Your task to perform on an android device: change notifications settings Image 0: 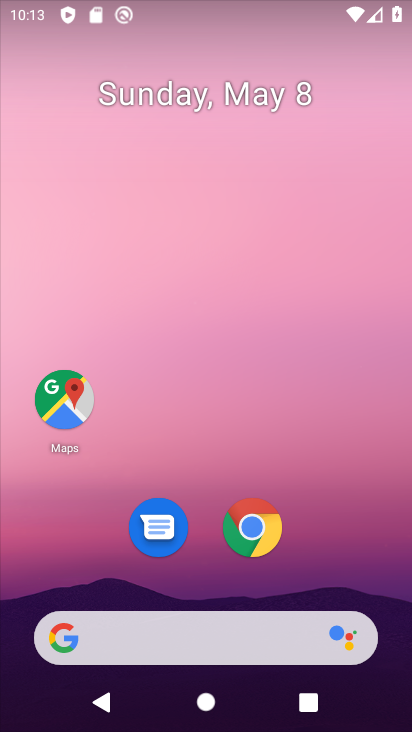
Step 0: drag from (319, 542) to (374, 53)
Your task to perform on an android device: change notifications settings Image 1: 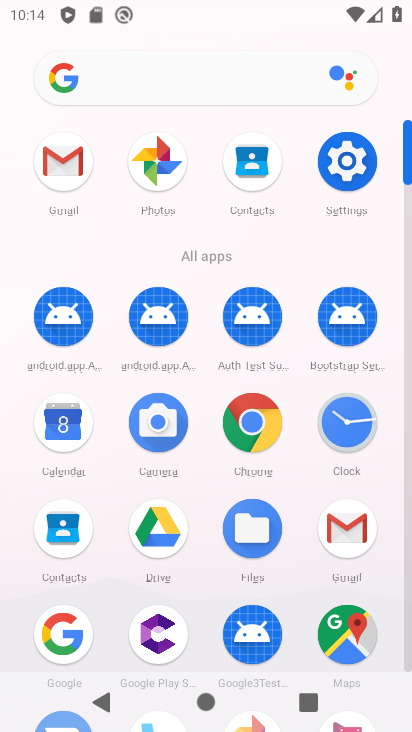
Step 1: click (347, 191)
Your task to perform on an android device: change notifications settings Image 2: 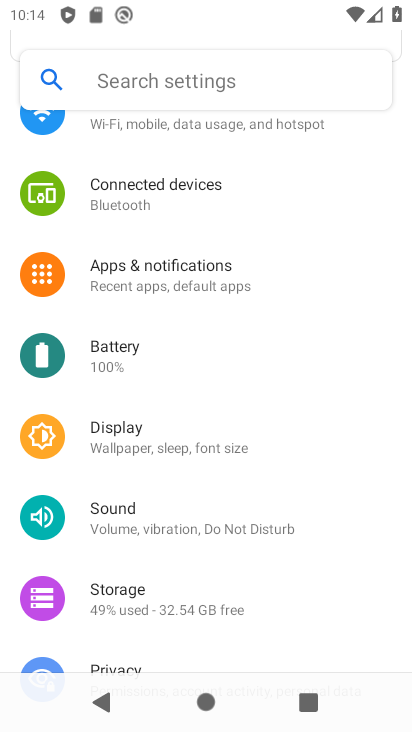
Step 2: click (271, 282)
Your task to perform on an android device: change notifications settings Image 3: 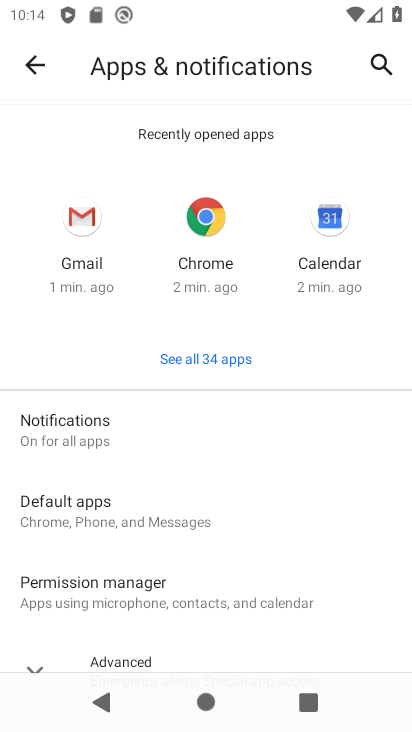
Step 3: click (158, 423)
Your task to perform on an android device: change notifications settings Image 4: 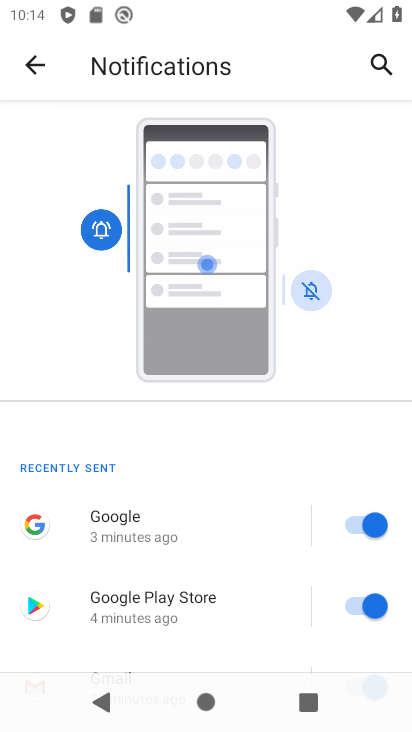
Step 4: task complete